Your task to perform on an android device: turn on translation in the chrome app Image 0: 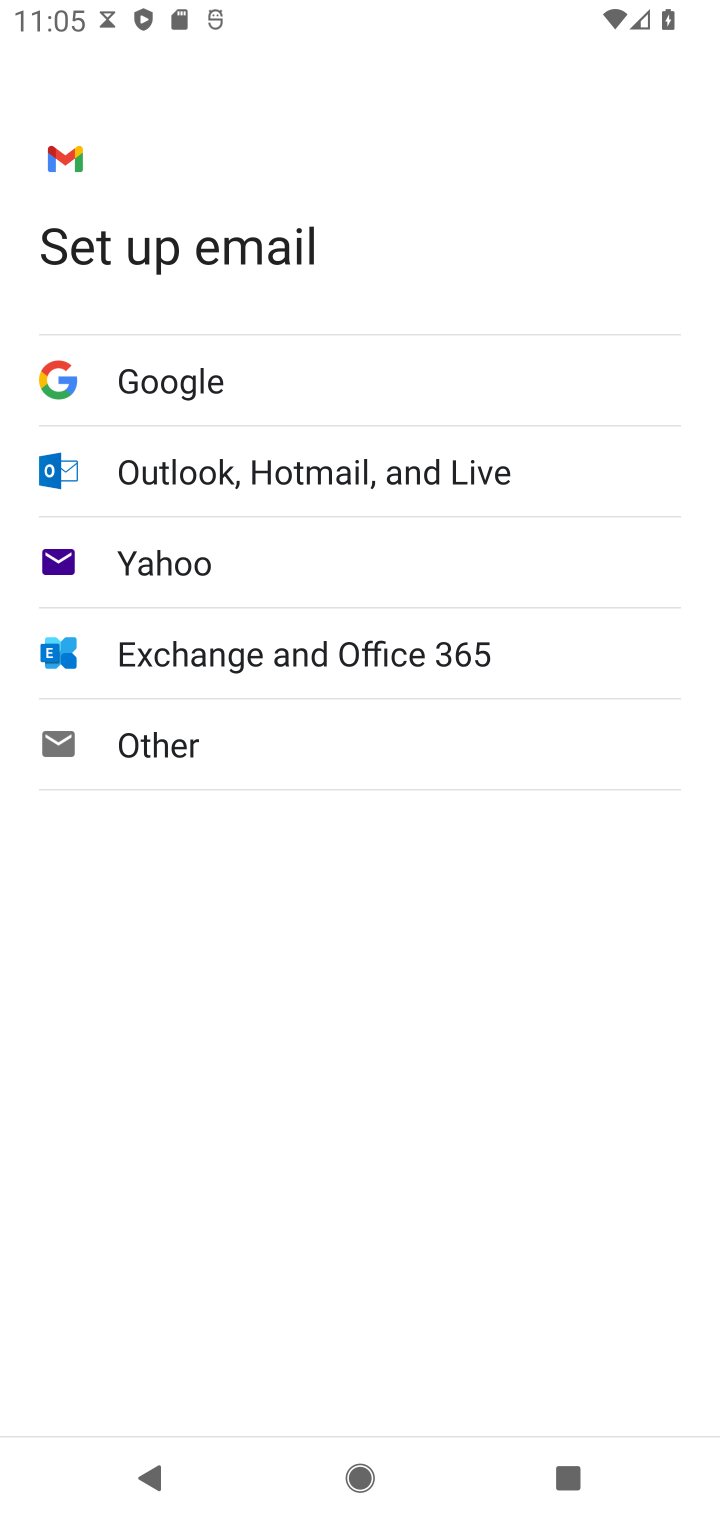
Step 0: press back button
Your task to perform on an android device: turn on translation in the chrome app Image 1: 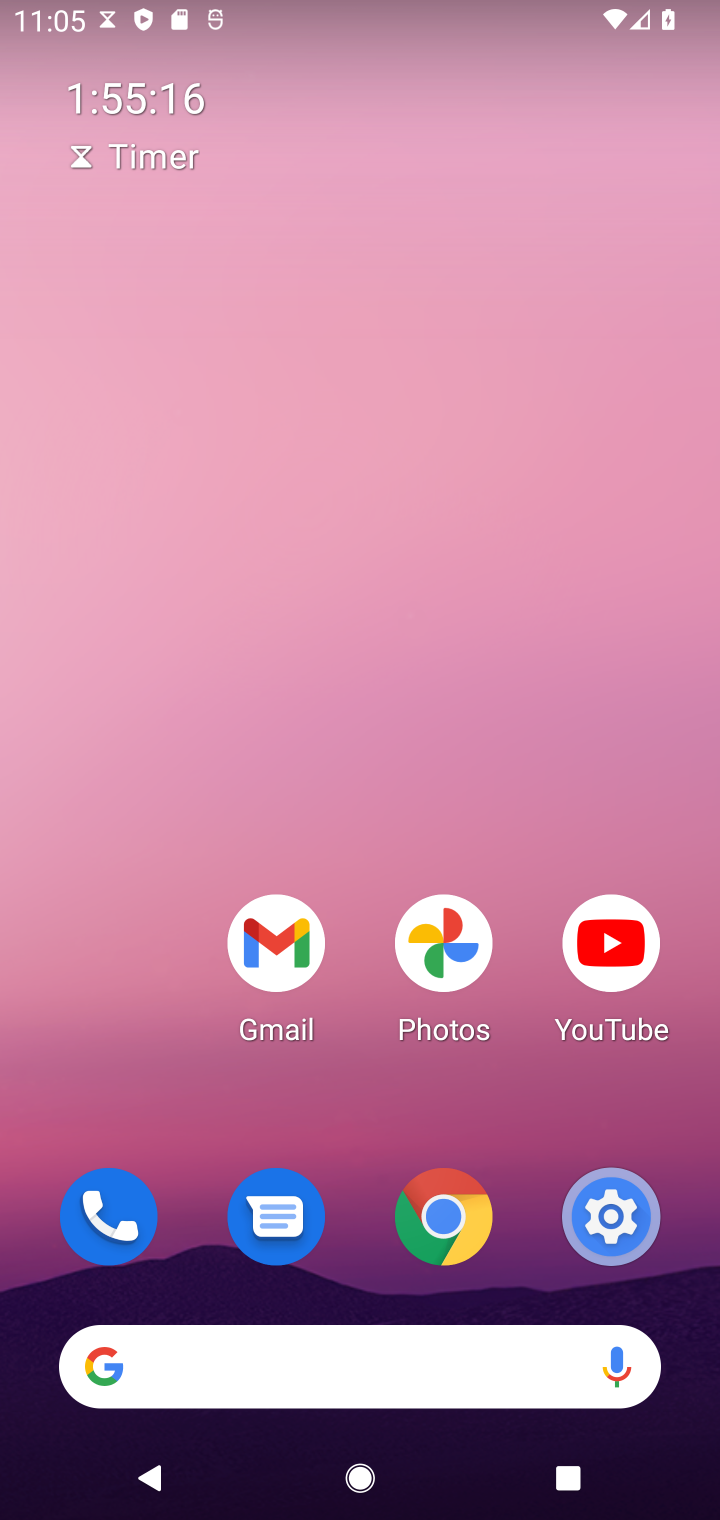
Step 1: click (441, 1217)
Your task to perform on an android device: turn on translation in the chrome app Image 2: 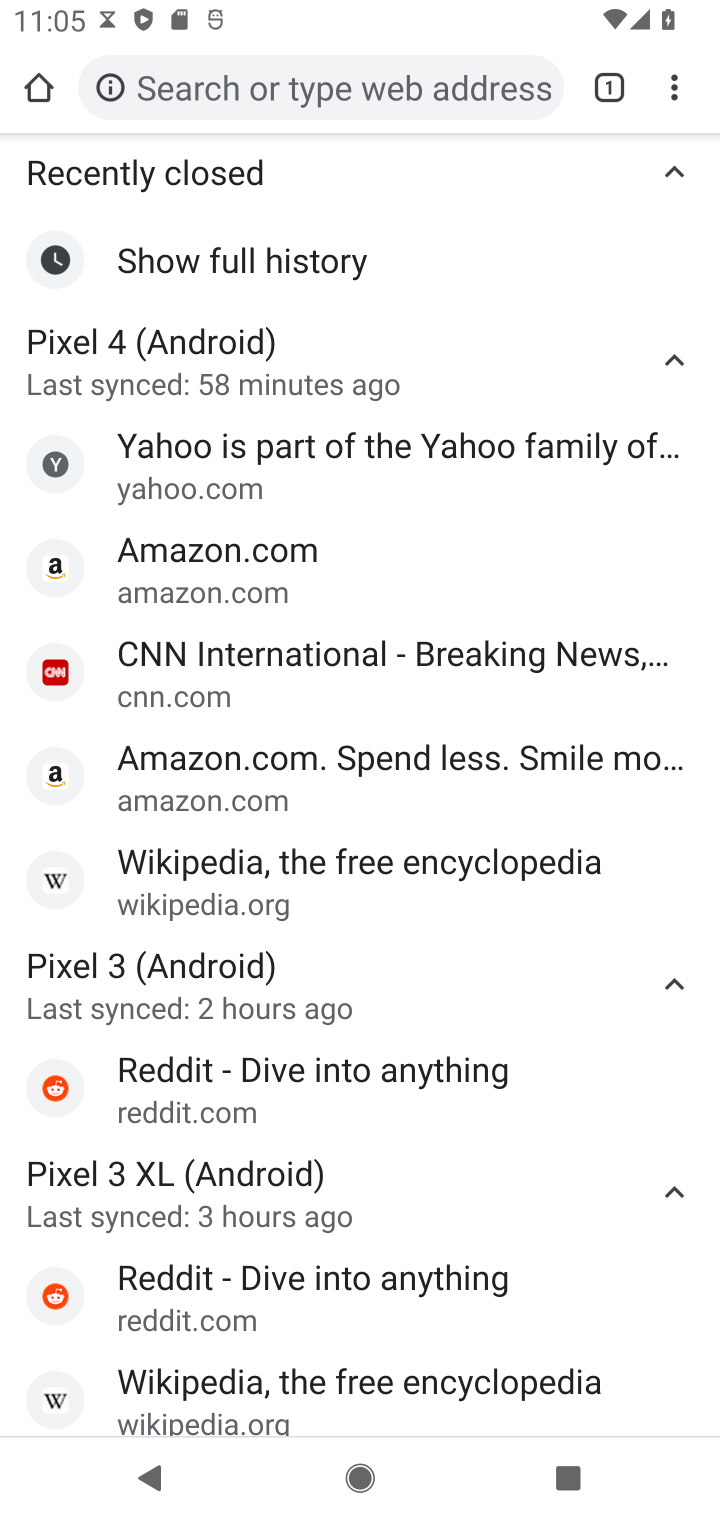
Step 2: drag from (668, 83) to (451, 891)
Your task to perform on an android device: turn on translation in the chrome app Image 3: 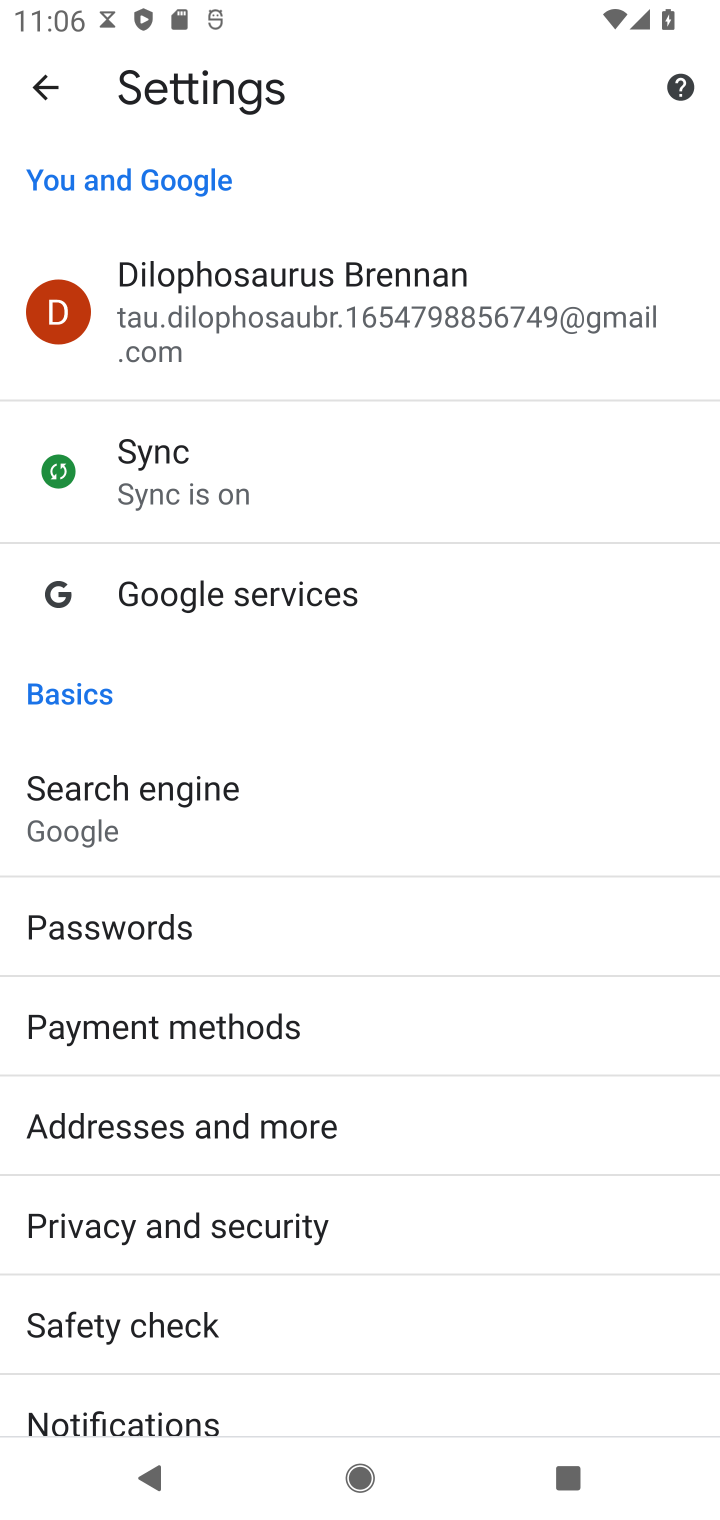
Step 3: drag from (236, 1269) to (417, 414)
Your task to perform on an android device: turn on translation in the chrome app Image 4: 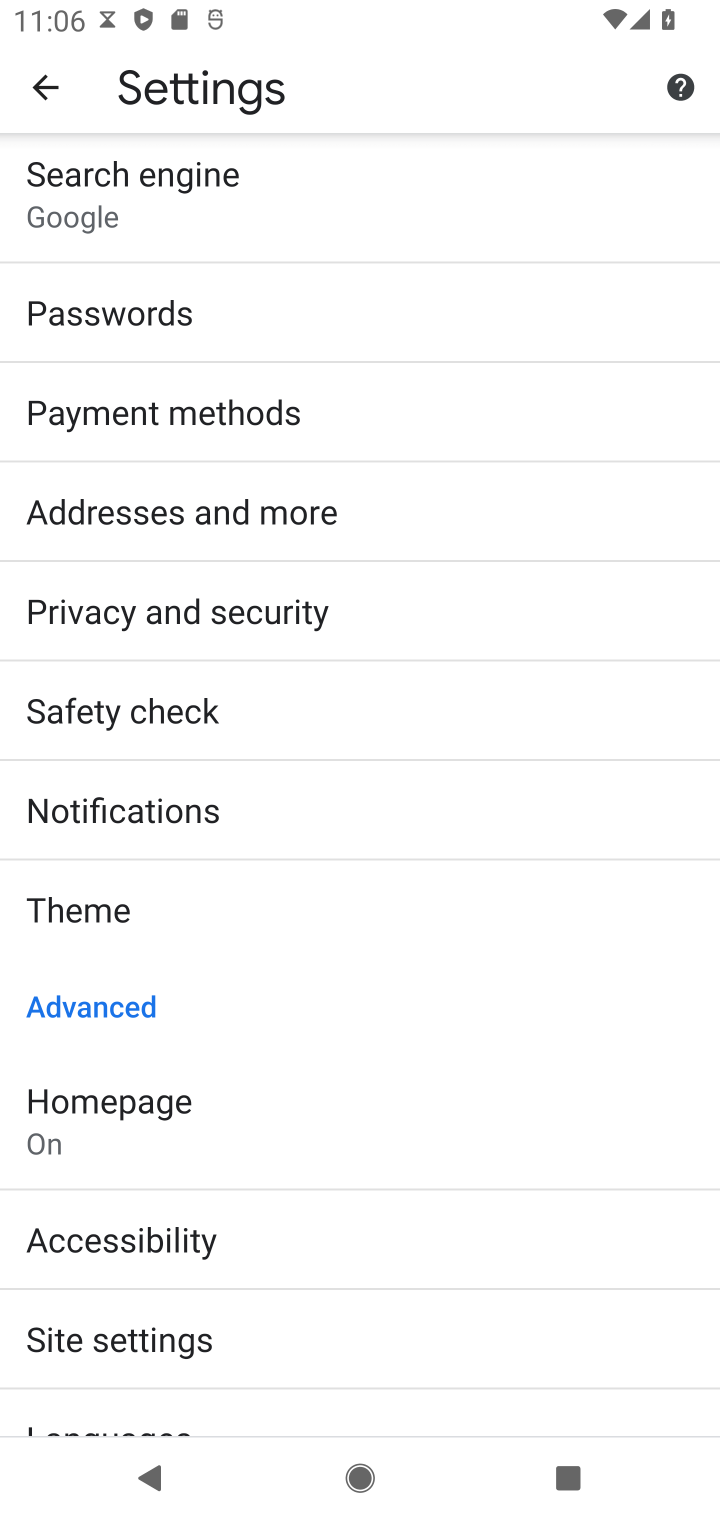
Step 4: drag from (213, 1354) to (435, 370)
Your task to perform on an android device: turn on translation in the chrome app Image 5: 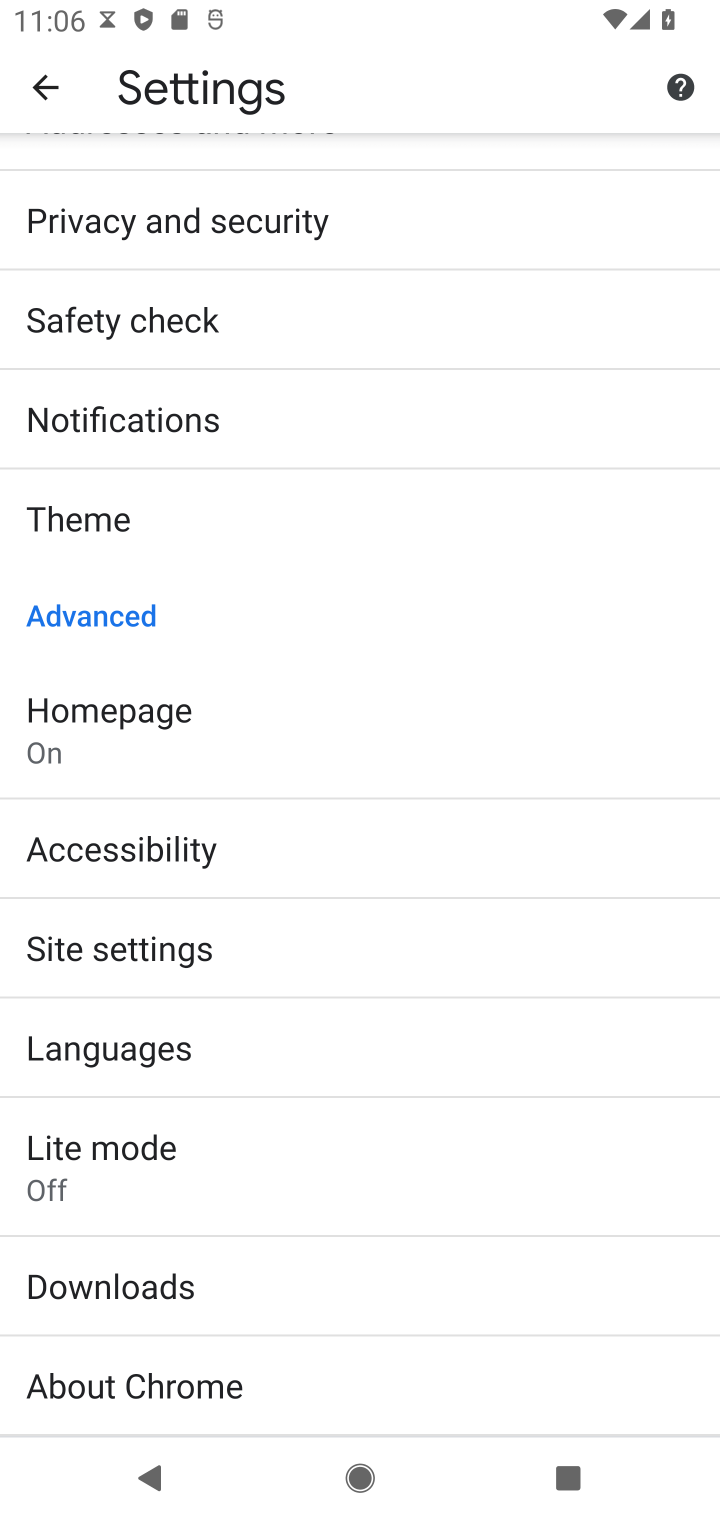
Step 5: click (113, 1053)
Your task to perform on an android device: turn on translation in the chrome app Image 6: 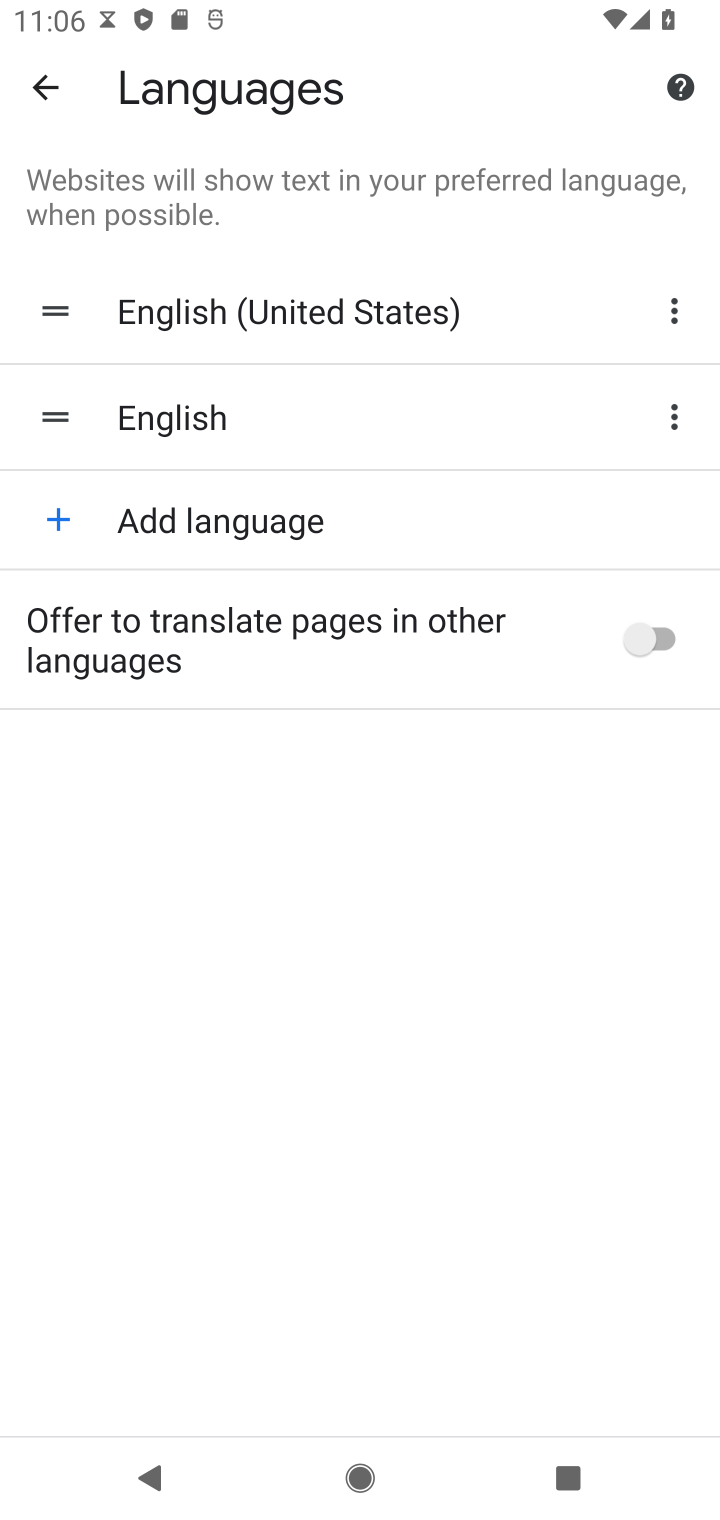
Step 6: click (673, 642)
Your task to perform on an android device: turn on translation in the chrome app Image 7: 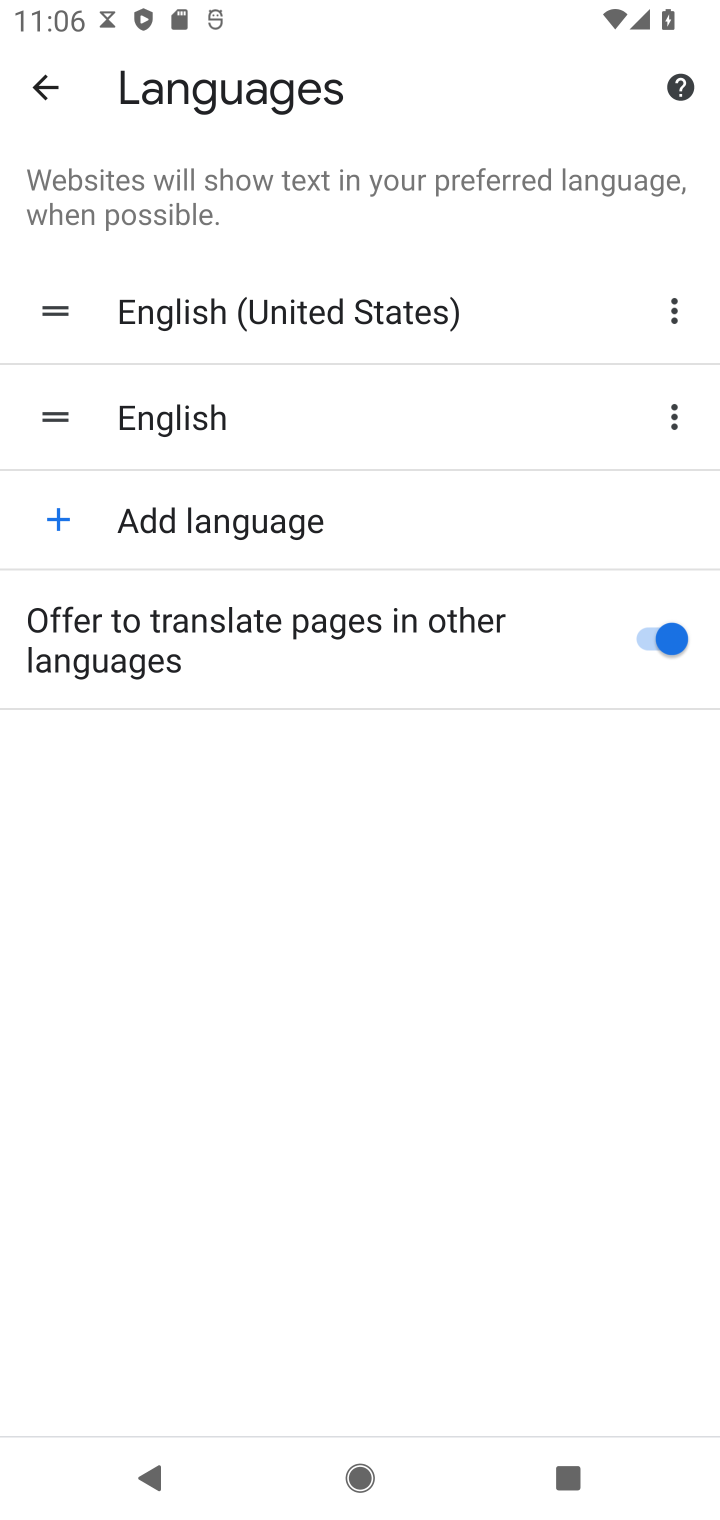
Step 7: task complete